Your task to perform on an android device: allow cookies in the chrome app Image 0: 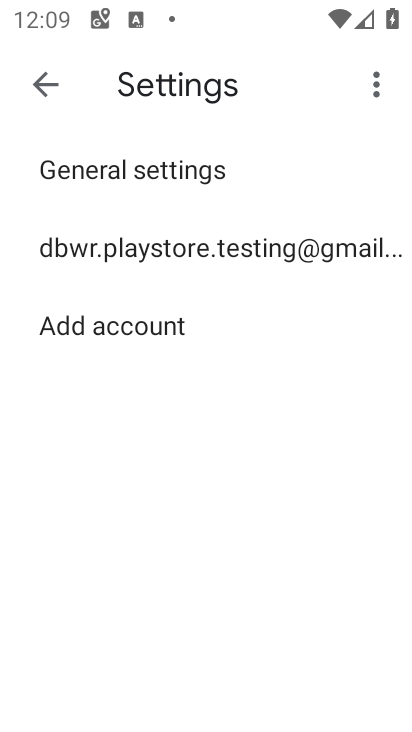
Step 0: press home button
Your task to perform on an android device: allow cookies in the chrome app Image 1: 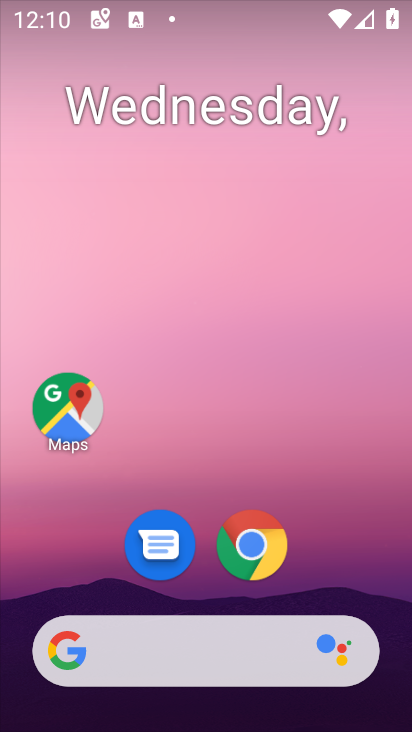
Step 1: click (254, 543)
Your task to perform on an android device: allow cookies in the chrome app Image 2: 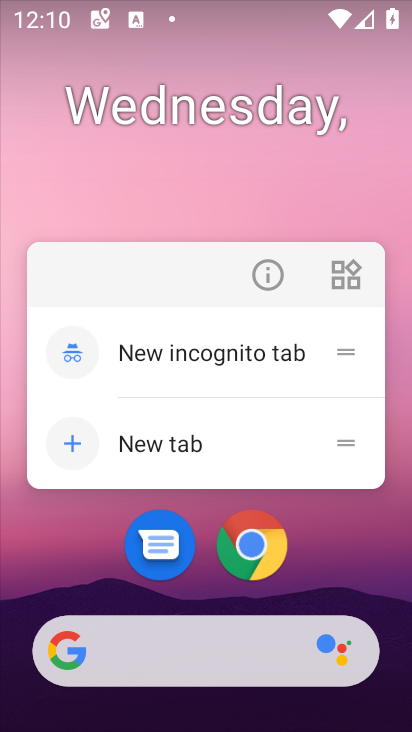
Step 2: click (277, 266)
Your task to perform on an android device: allow cookies in the chrome app Image 3: 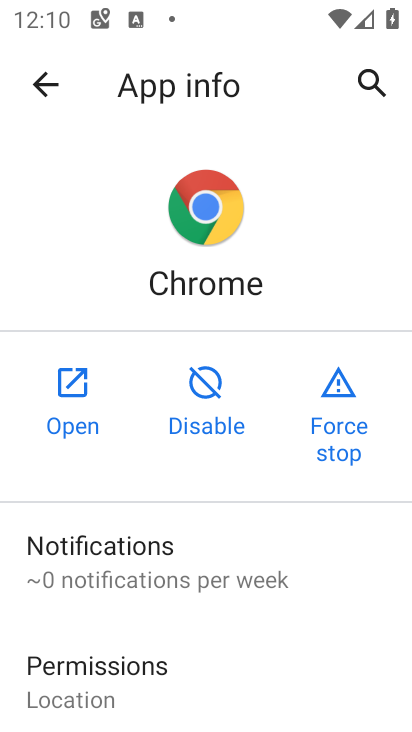
Step 3: click (86, 421)
Your task to perform on an android device: allow cookies in the chrome app Image 4: 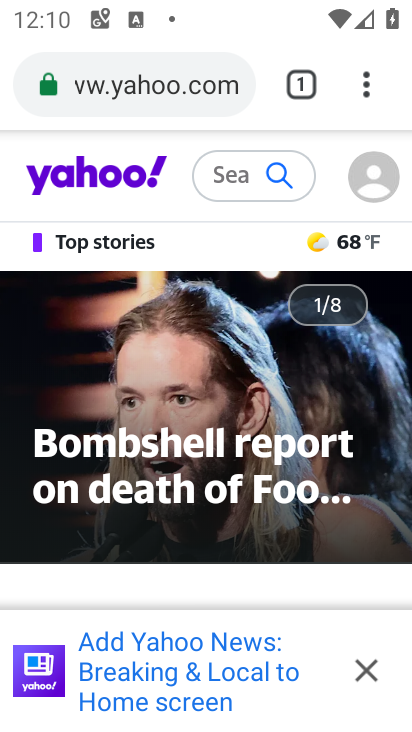
Step 4: click (368, 83)
Your task to perform on an android device: allow cookies in the chrome app Image 5: 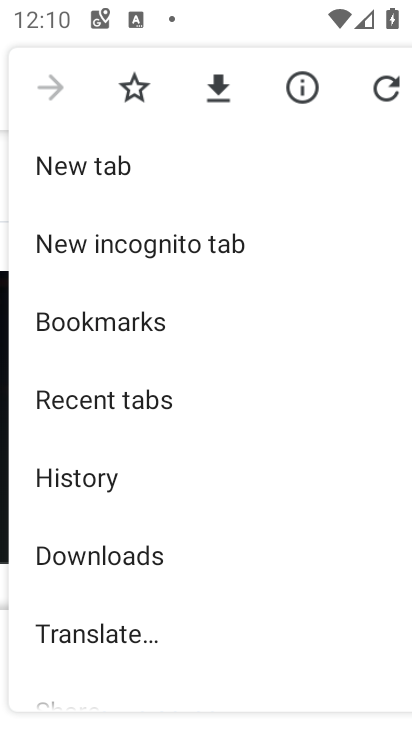
Step 5: click (64, 464)
Your task to perform on an android device: allow cookies in the chrome app Image 6: 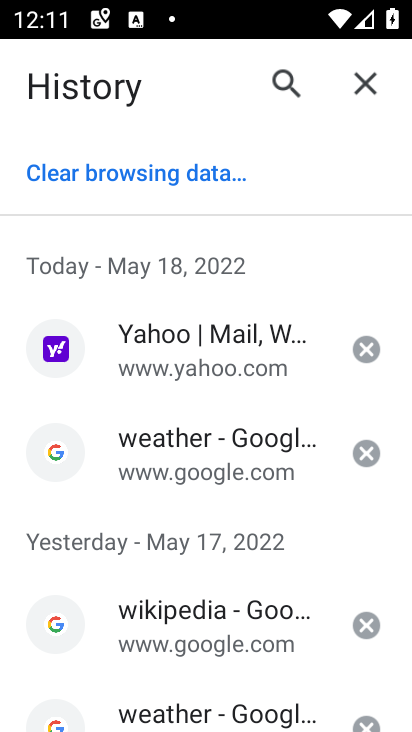
Step 6: click (189, 177)
Your task to perform on an android device: allow cookies in the chrome app Image 7: 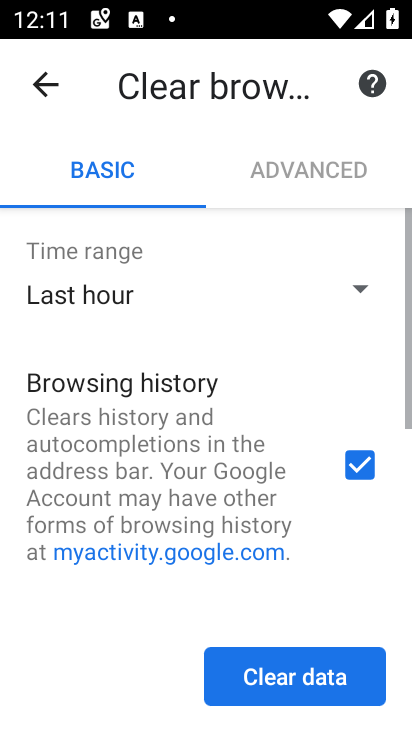
Step 7: click (265, 183)
Your task to perform on an android device: allow cookies in the chrome app Image 8: 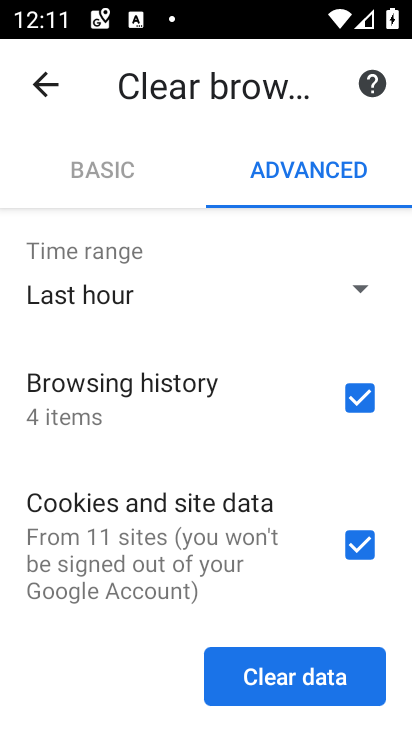
Step 8: click (354, 405)
Your task to perform on an android device: allow cookies in the chrome app Image 9: 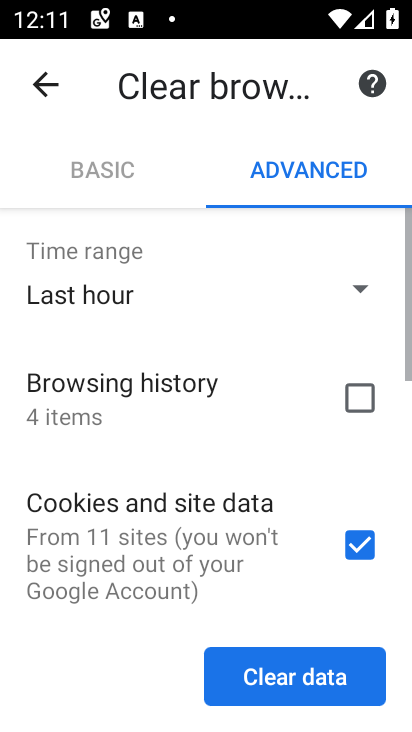
Step 9: click (294, 682)
Your task to perform on an android device: allow cookies in the chrome app Image 10: 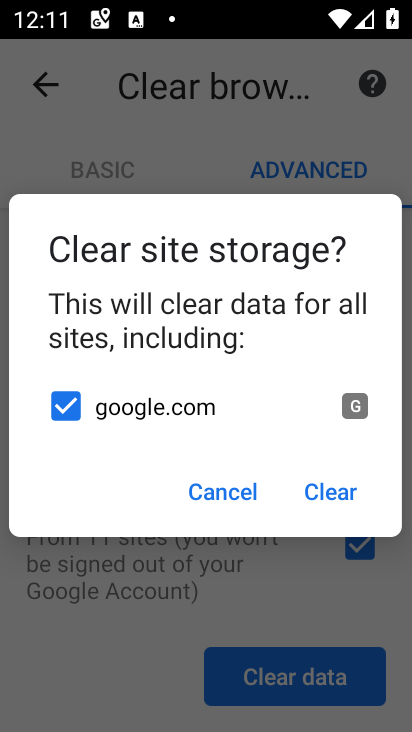
Step 10: click (346, 504)
Your task to perform on an android device: allow cookies in the chrome app Image 11: 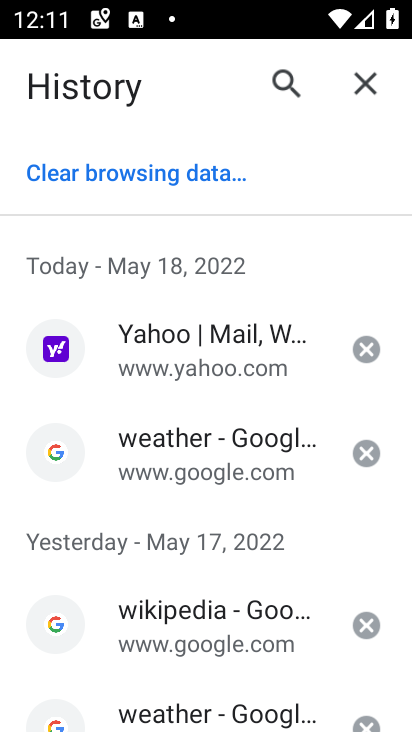
Step 11: task complete